Your task to perform on an android device: turn off location Image 0: 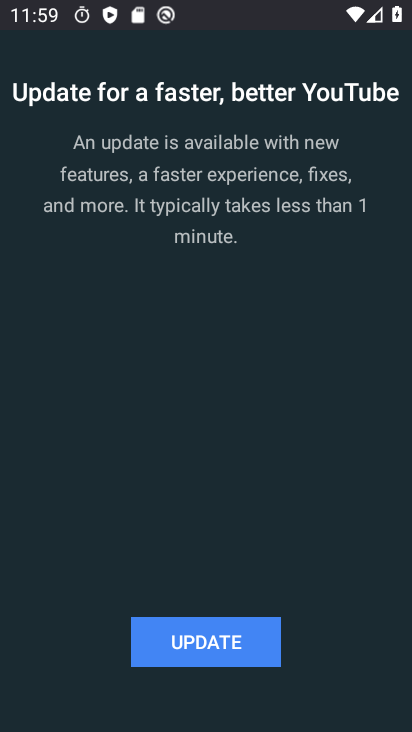
Step 0: press home button
Your task to perform on an android device: turn off location Image 1: 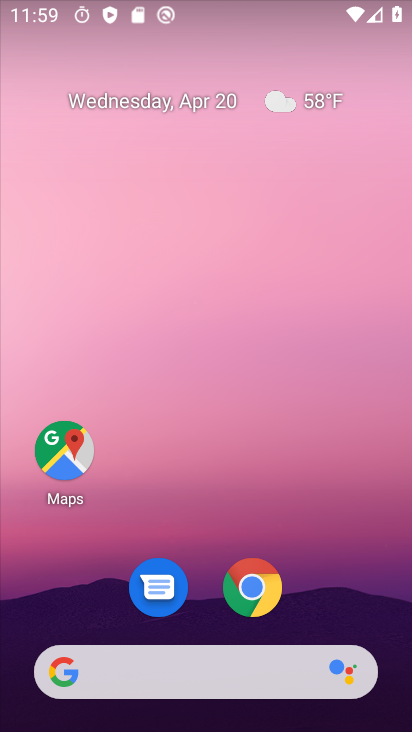
Step 1: drag from (194, 484) to (281, 4)
Your task to perform on an android device: turn off location Image 2: 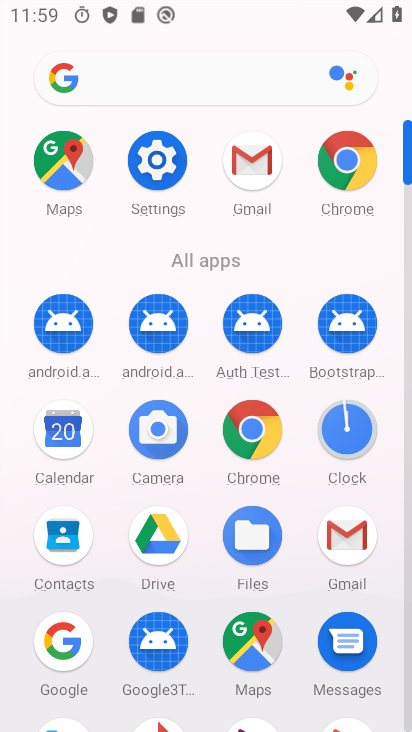
Step 2: click (156, 180)
Your task to perform on an android device: turn off location Image 3: 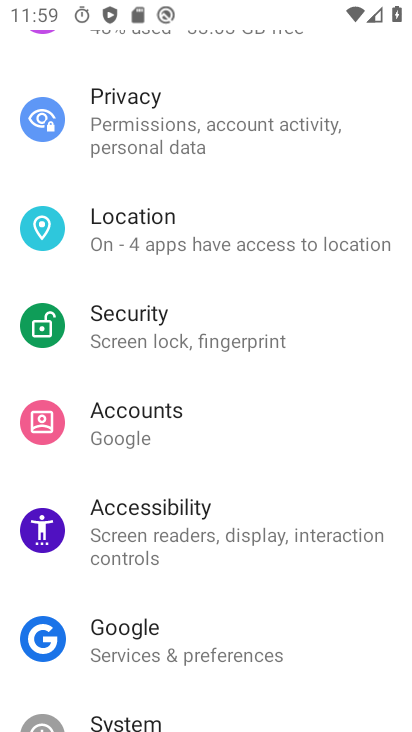
Step 3: click (176, 237)
Your task to perform on an android device: turn off location Image 4: 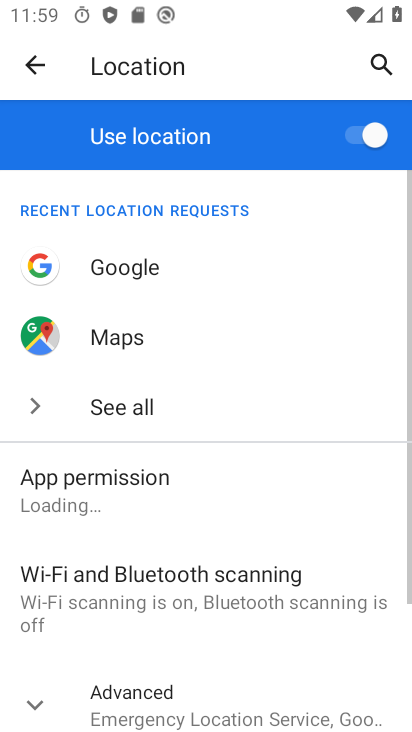
Step 4: click (353, 138)
Your task to perform on an android device: turn off location Image 5: 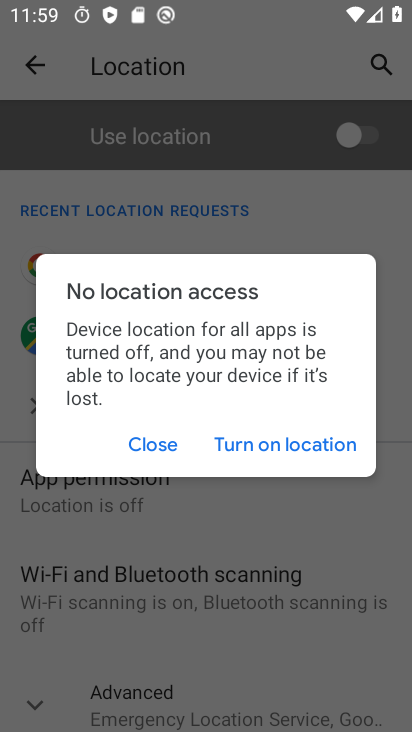
Step 5: click (169, 445)
Your task to perform on an android device: turn off location Image 6: 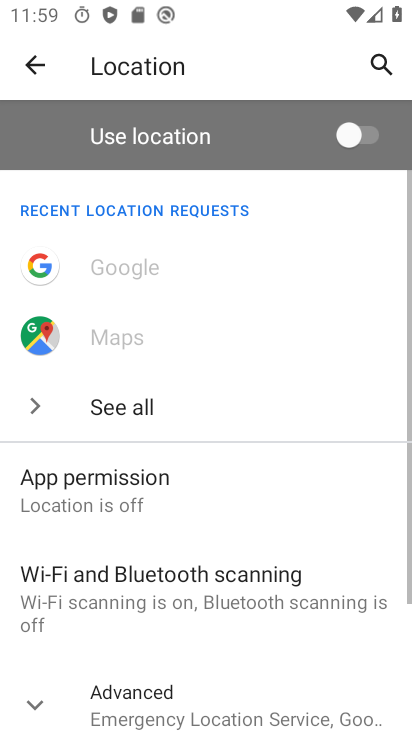
Step 6: task complete